Your task to perform on an android device: Set the phone to "Do not disturb". Image 0: 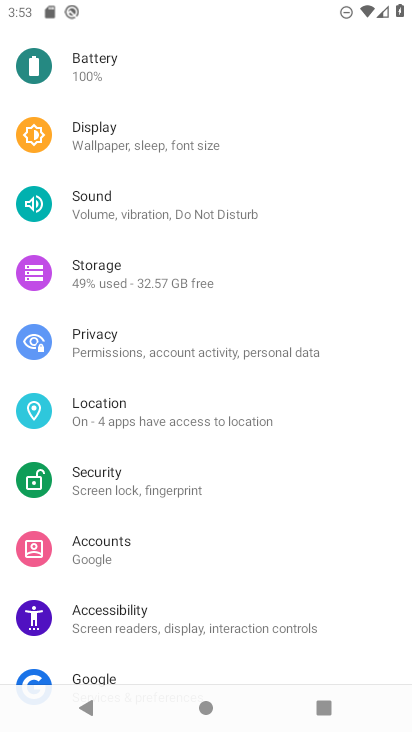
Step 0: click (186, 214)
Your task to perform on an android device: Set the phone to "Do not disturb". Image 1: 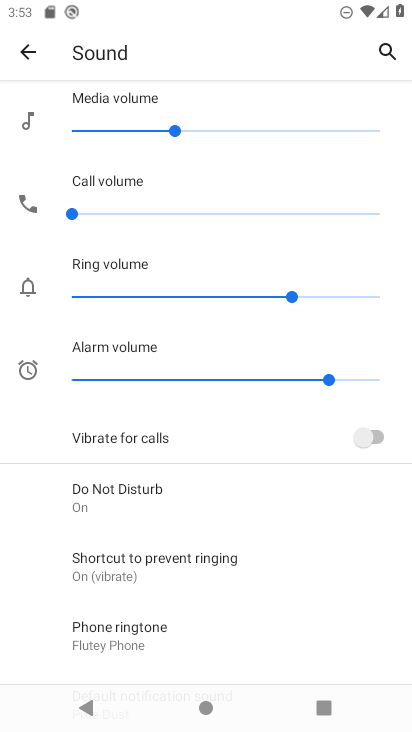
Step 1: drag from (172, 601) to (162, 378)
Your task to perform on an android device: Set the phone to "Do not disturb". Image 2: 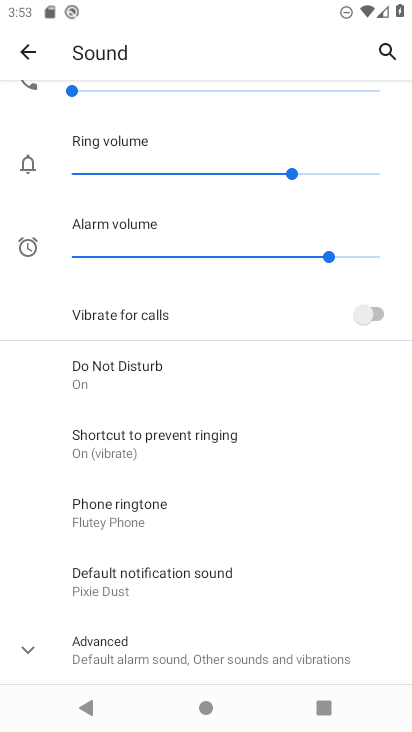
Step 2: click (140, 357)
Your task to perform on an android device: Set the phone to "Do not disturb". Image 3: 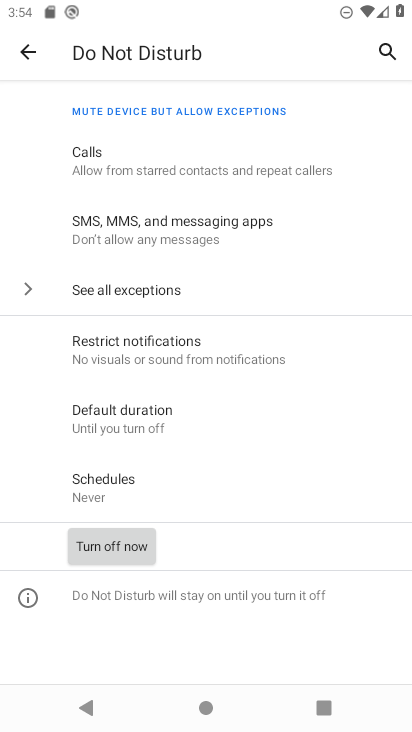
Step 3: task complete